Your task to perform on an android device: Open Reddit.com Image 0: 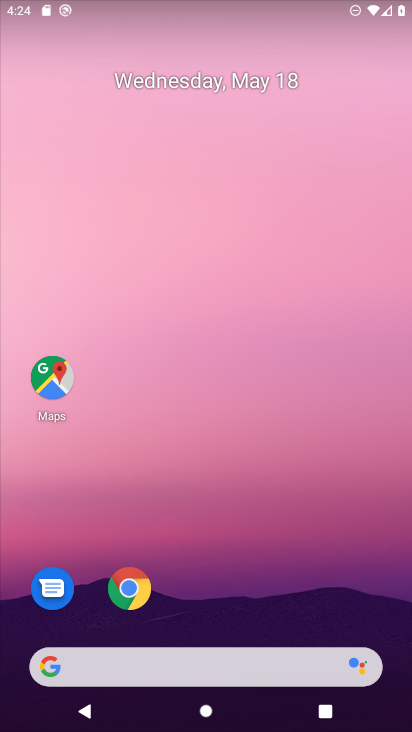
Step 0: click (142, 595)
Your task to perform on an android device: Open Reddit.com Image 1: 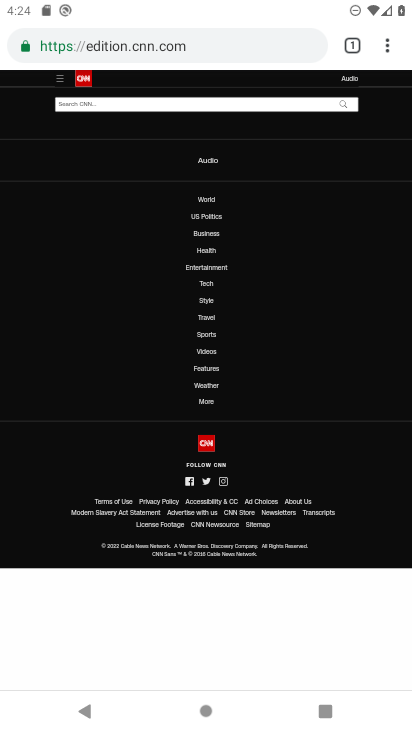
Step 1: click (177, 41)
Your task to perform on an android device: Open Reddit.com Image 2: 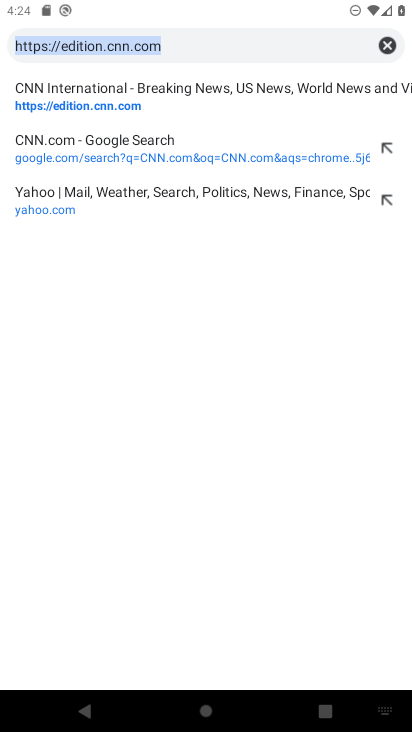
Step 2: type "reddit.com"
Your task to perform on an android device: Open Reddit.com Image 3: 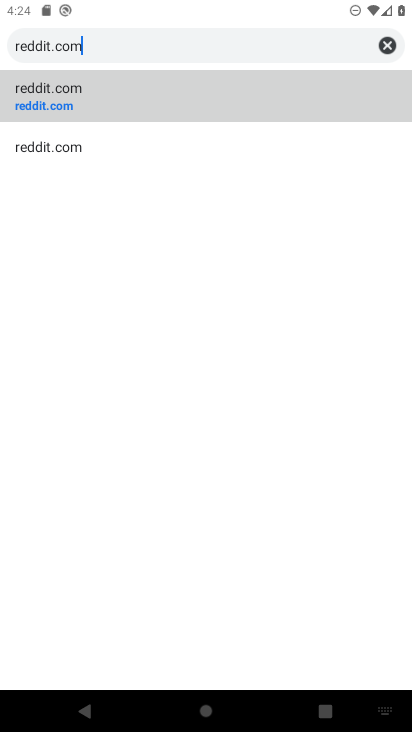
Step 3: click (198, 110)
Your task to perform on an android device: Open Reddit.com Image 4: 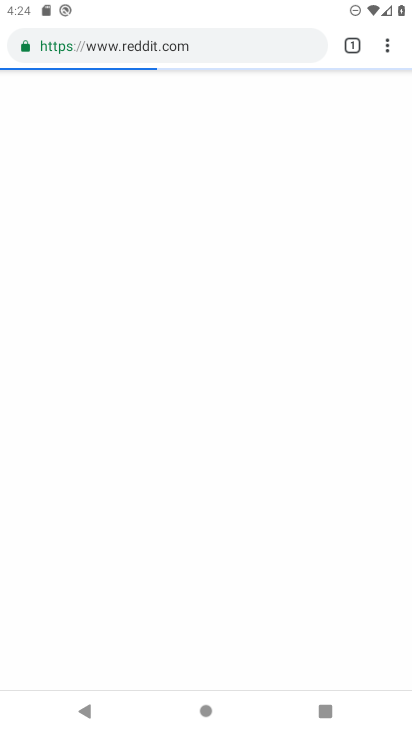
Step 4: task complete